Your task to perform on an android device: add a contact in the contacts app Image 0: 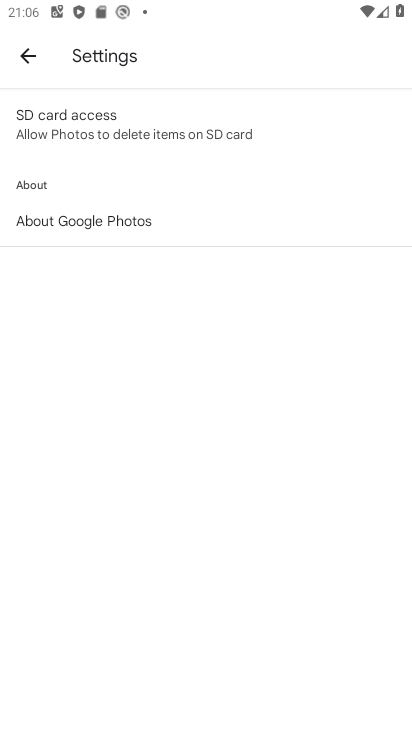
Step 0: press back button
Your task to perform on an android device: add a contact in the contacts app Image 1: 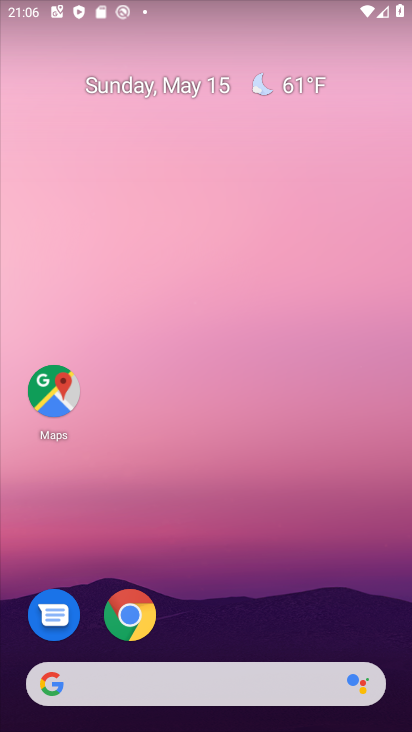
Step 1: drag from (245, 549) to (193, 4)
Your task to perform on an android device: add a contact in the contacts app Image 2: 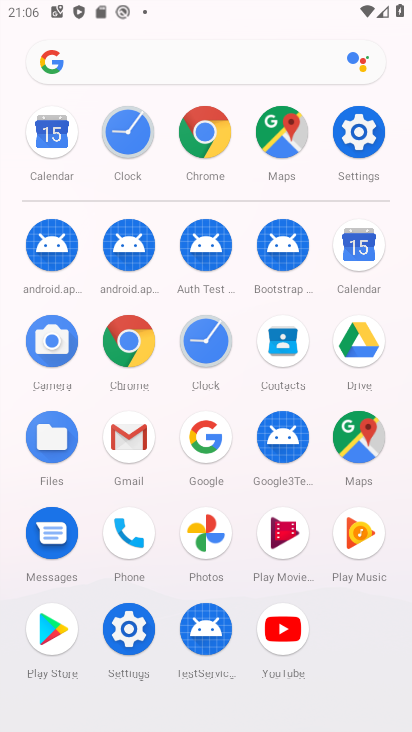
Step 2: click (205, 339)
Your task to perform on an android device: add a contact in the contacts app Image 3: 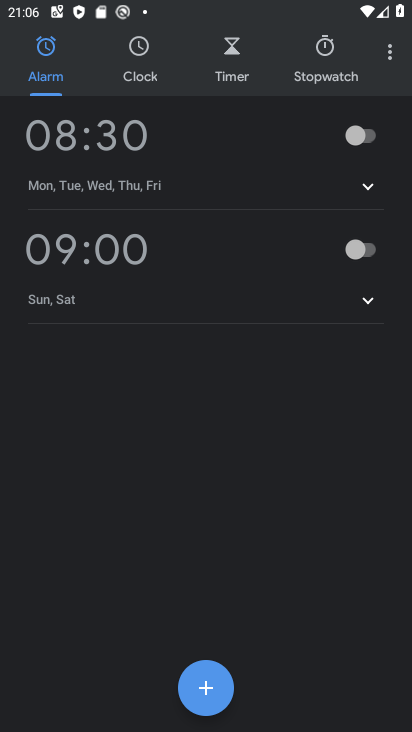
Step 3: press back button
Your task to perform on an android device: add a contact in the contacts app Image 4: 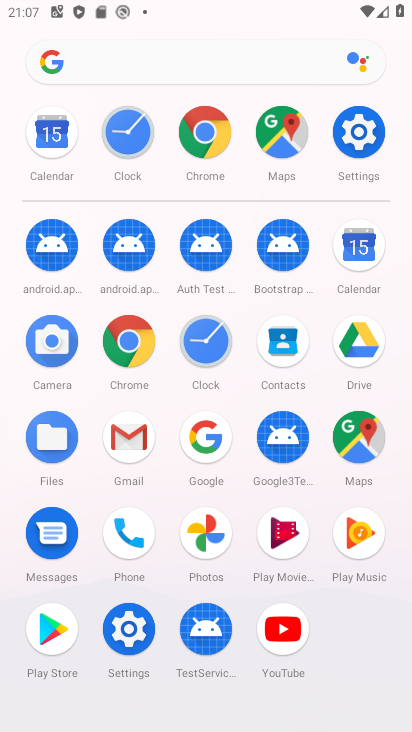
Step 4: click (281, 334)
Your task to perform on an android device: add a contact in the contacts app Image 5: 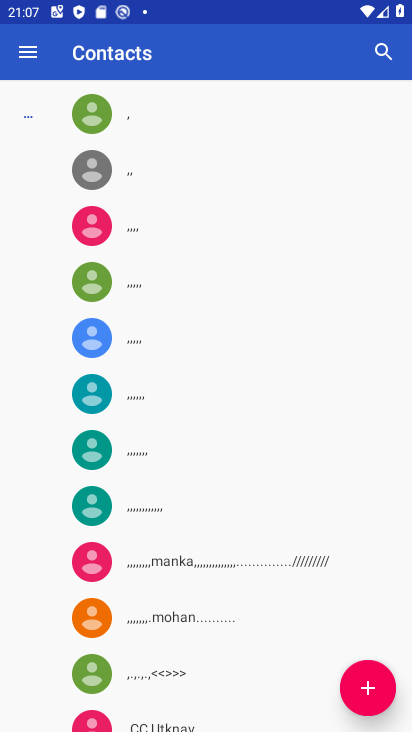
Step 5: task complete